Your task to perform on an android device: add a label to a message in the gmail app Image 0: 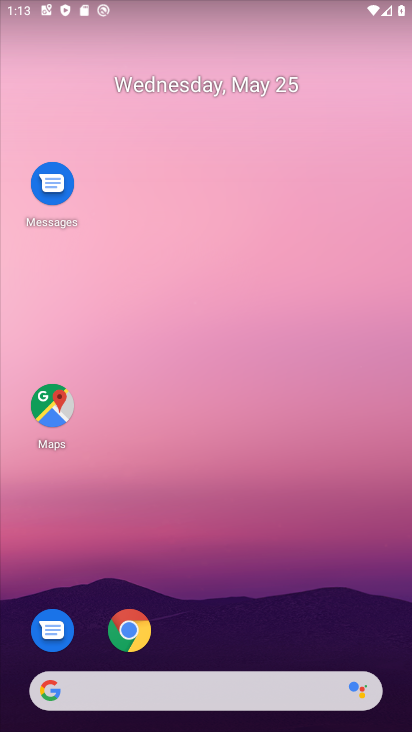
Step 0: drag from (330, 620) to (114, 110)
Your task to perform on an android device: add a label to a message in the gmail app Image 1: 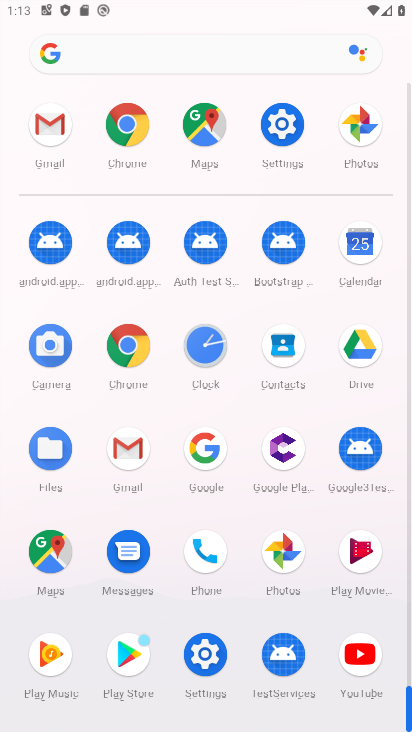
Step 1: click (126, 581)
Your task to perform on an android device: add a label to a message in the gmail app Image 2: 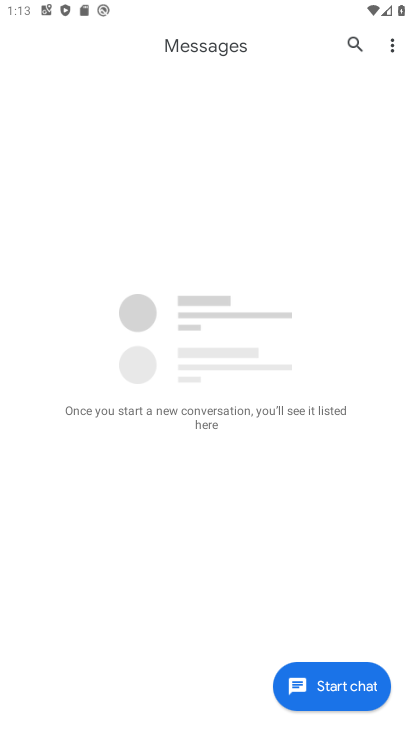
Step 2: press back button
Your task to perform on an android device: add a label to a message in the gmail app Image 3: 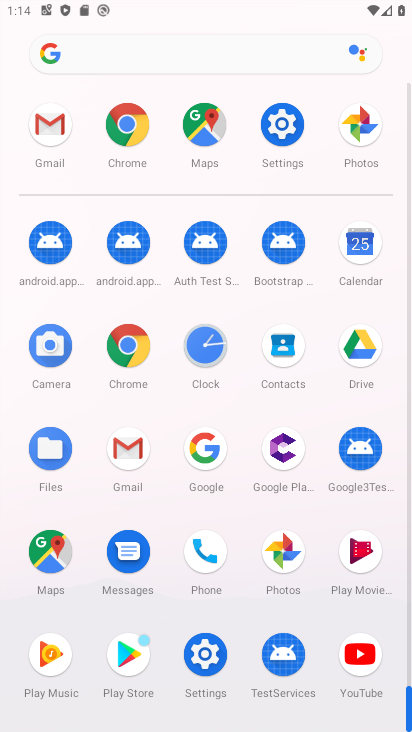
Step 3: click (132, 440)
Your task to perform on an android device: add a label to a message in the gmail app Image 4: 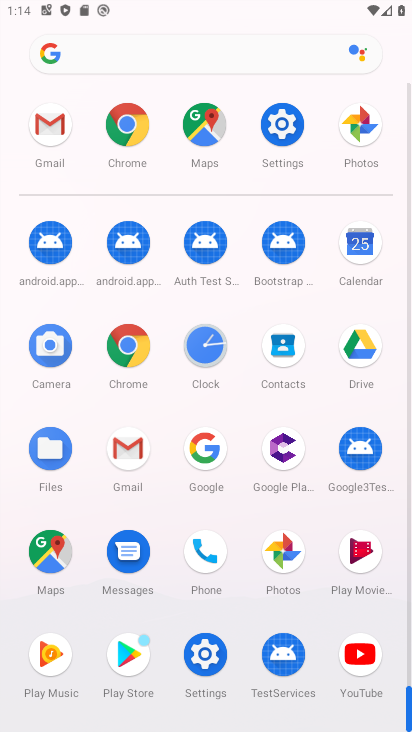
Step 4: click (132, 440)
Your task to perform on an android device: add a label to a message in the gmail app Image 5: 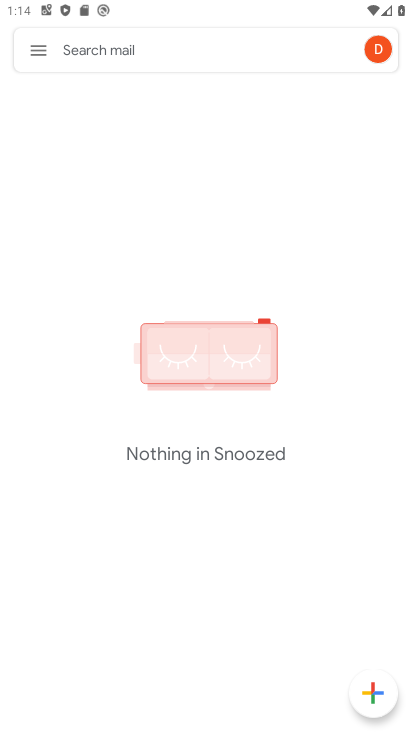
Step 5: click (128, 437)
Your task to perform on an android device: add a label to a message in the gmail app Image 6: 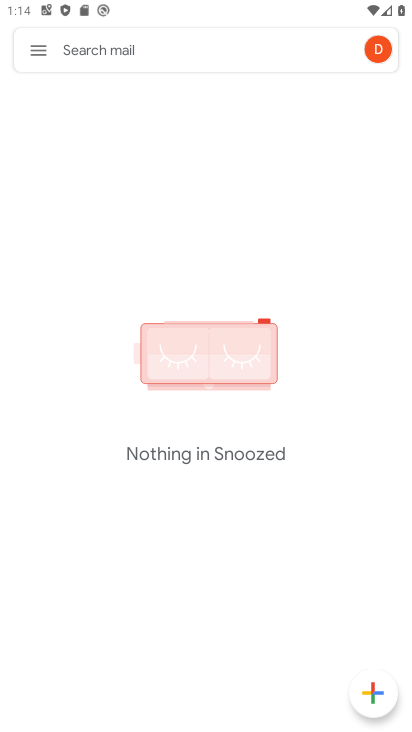
Step 6: click (127, 436)
Your task to perform on an android device: add a label to a message in the gmail app Image 7: 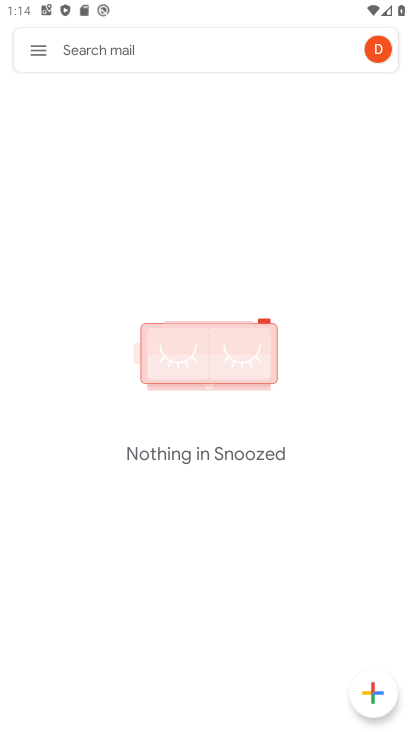
Step 7: click (35, 51)
Your task to perform on an android device: add a label to a message in the gmail app Image 8: 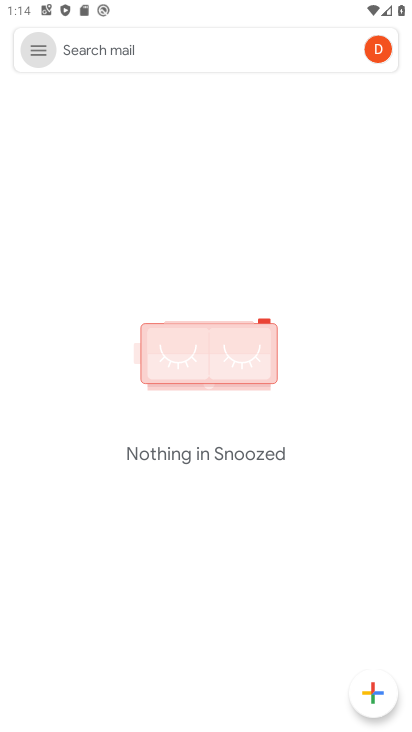
Step 8: click (35, 51)
Your task to perform on an android device: add a label to a message in the gmail app Image 9: 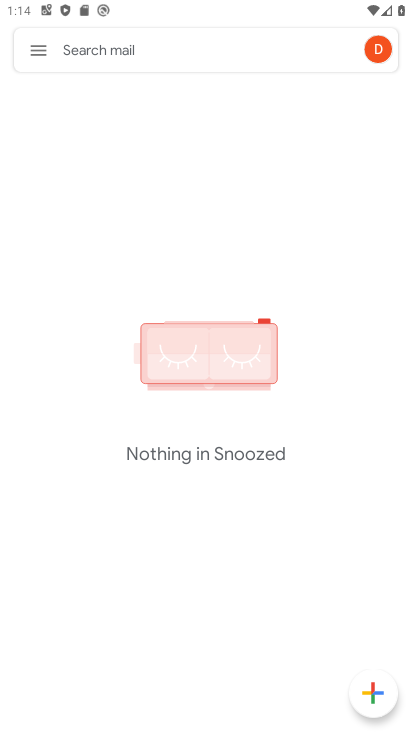
Step 9: drag from (48, 48) to (58, 392)
Your task to perform on an android device: add a label to a message in the gmail app Image 10: 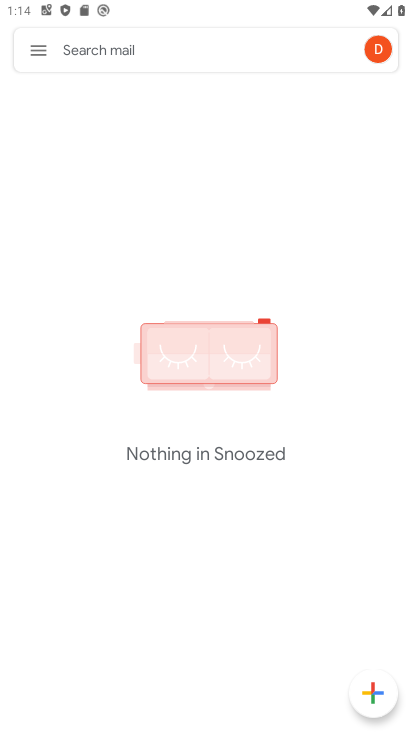
Step 10: click (42, 47)
Your task to perform on an android device: add a label to a message in the gmail app Image 11: 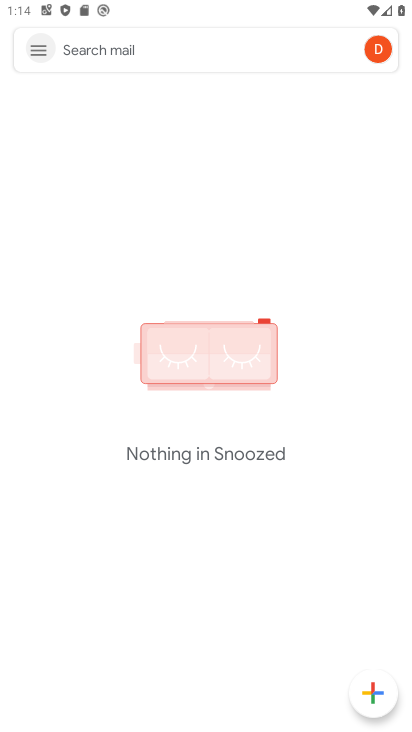
Step 11: click (41, 49)
Your task to perform on an android device: add a label to a message in the gmail app Image 12: 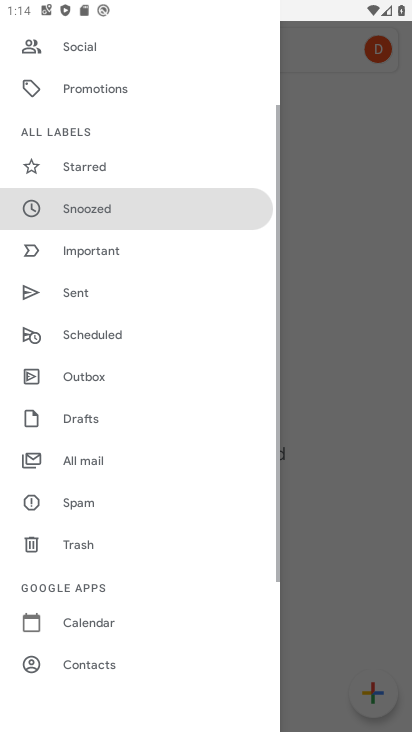
Step 12: drag from (41, 51) to (81, 545)
Your task to perform on an android device: add a label to a message in the gmail app Image 13: 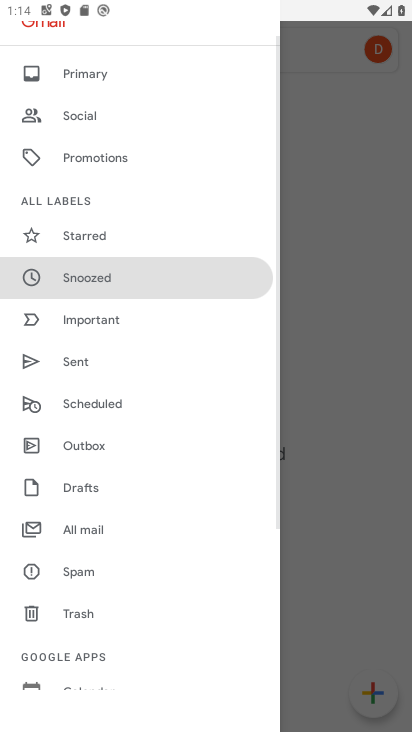
Step 13: click (90, 542)
Your task to perform on an android device: add a label to a message in the gmail app Image 14: 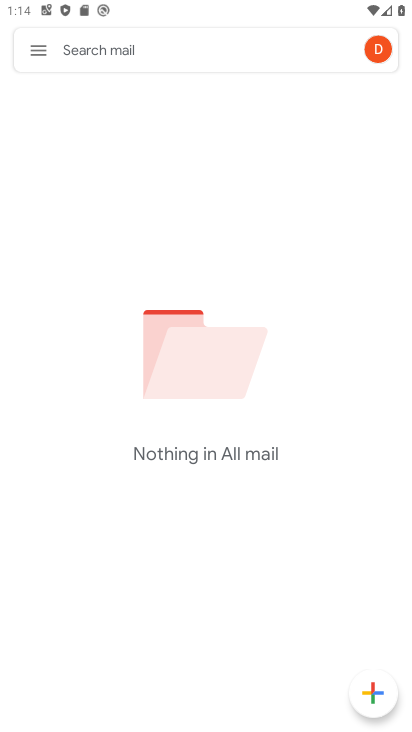
Step 14: click (89, 528)
Your task to perform on an android device: add a label to a message in the gmail app Image 15: 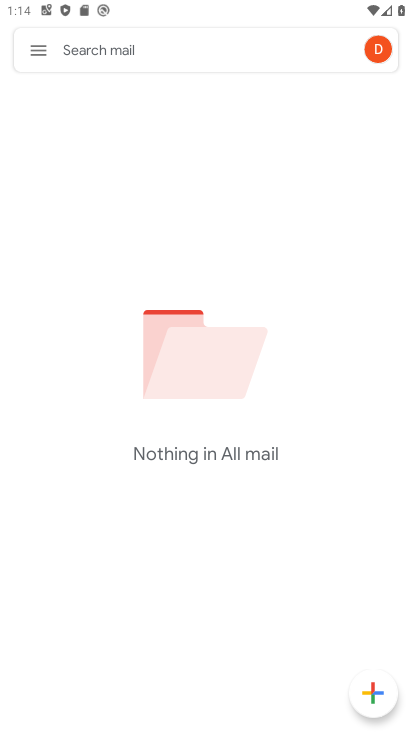
Step 15: press back button
Your task to perform on an android device: add a label to a message in the gmail app Image 16: 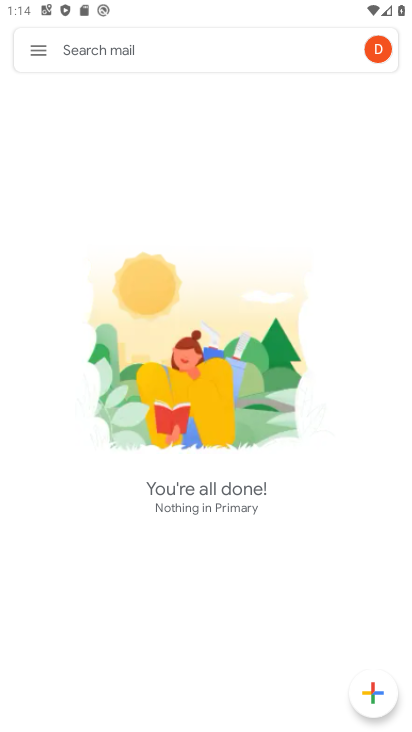
Step 16: press home button
Your task to perform on an android device: add a label to a message in the gmail app Image 17: 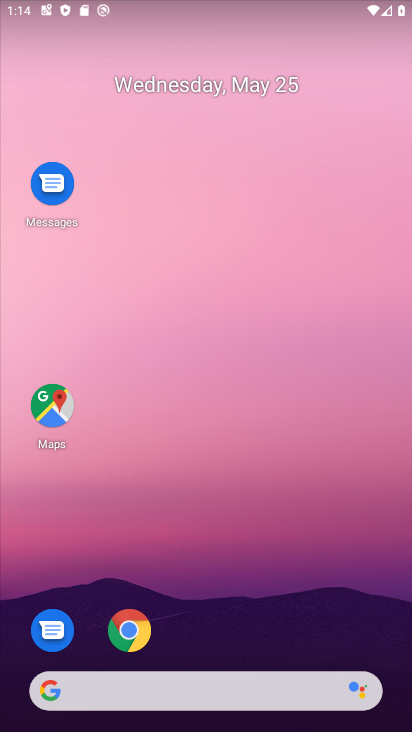
Step 17: drag from (306, 624) to (187, 0)
Your task to perform on an android device: add a label to a message in the gmail app Image 18: 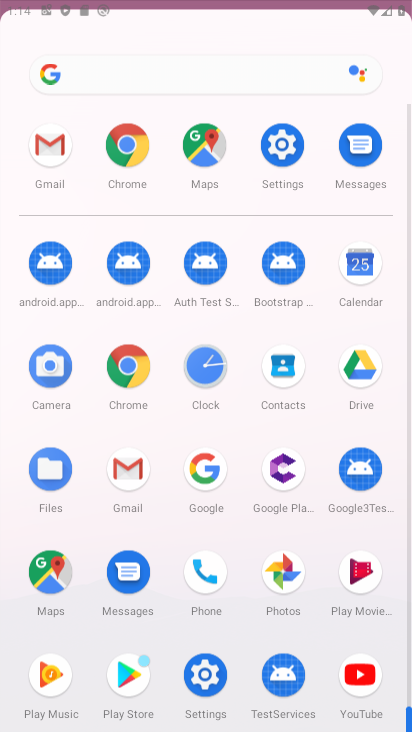
Step 18: drag from (238, 573) to (151, 219)
Your task to perform on an android device: add a label to a message in the gmail app Image 19: 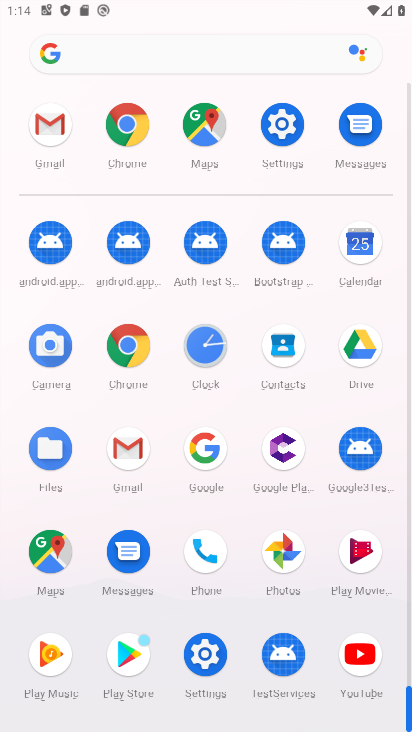
Step 19: click (135, 448)
Your task to perform on an android device: add a label to a message in the gmail app Image 20: 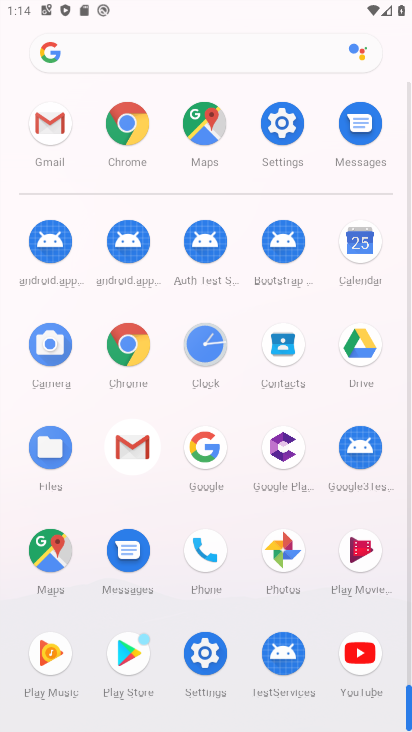
Step 20: click (135, 448)
Your task to perform on an android device: add a label to a message in the gmail app Image 21: 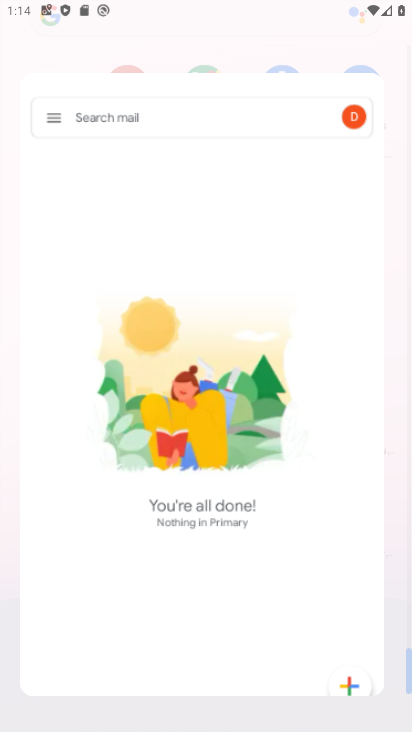
Step 21: click (135, 448)
Your task to perform on an android device: add a label to a message in the gmail app Image 22: 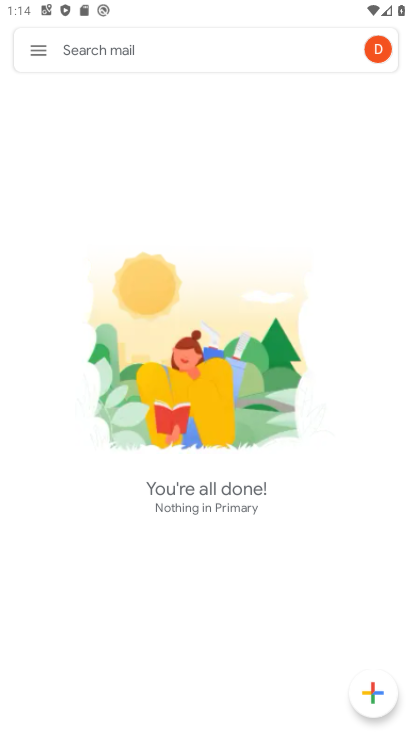
Step 22: click (135, 448)
Your task to perform on an android device: add a label to a message in the gmail app Image 23: 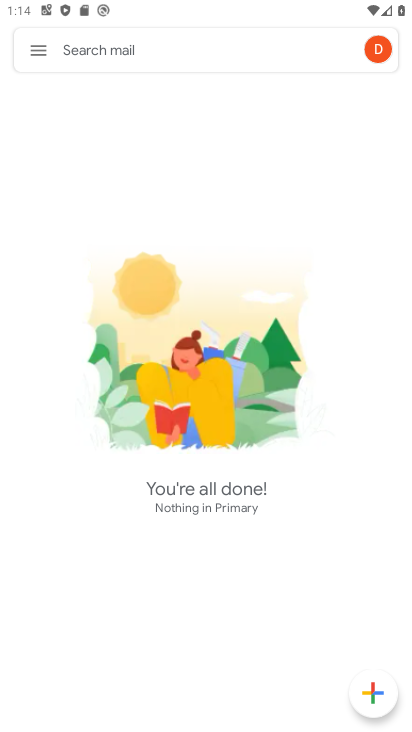
Step 23: click (134, 448)
Your task to perform on an android device: add a label to a message in the gmail app Image 24: 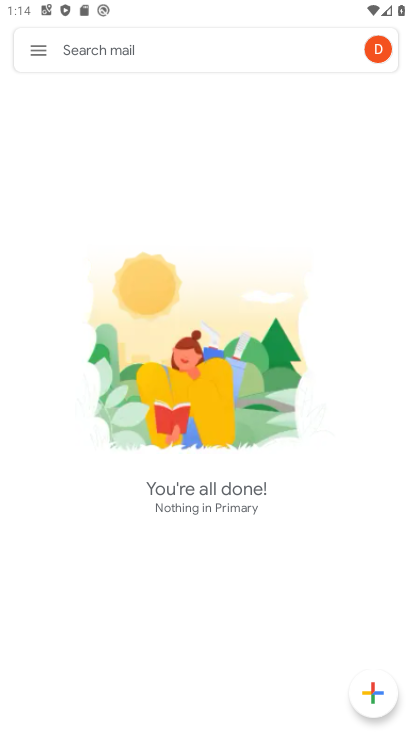
Step 24: drag from (33, 49) to (48, 166)
Your task to perform on an android device: add a label to a message in the gmail app Image 25: 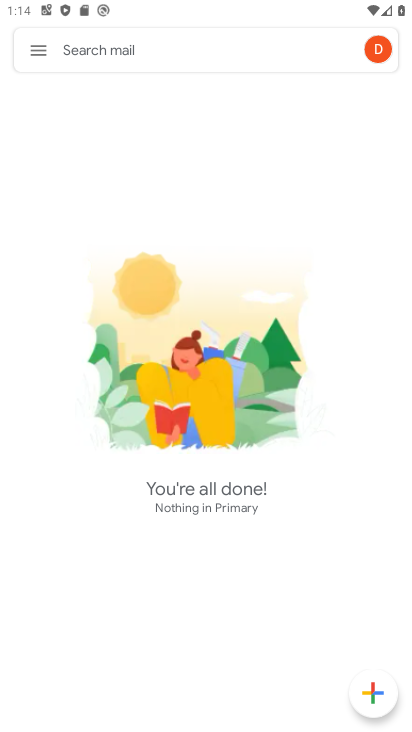
Step 25: click (36, 51)
Your task to perform on an android device: add a label to a message in the gmail app Image 26: 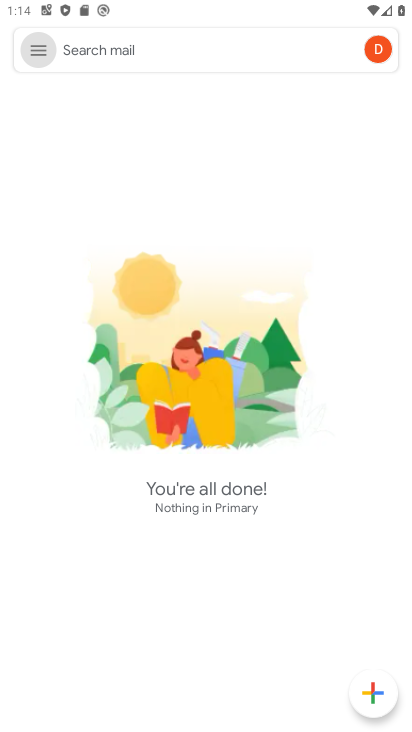
Step 26: click (36, 52)
Your task to perform on an android device: add a label to a message in the gmail app Image 27: 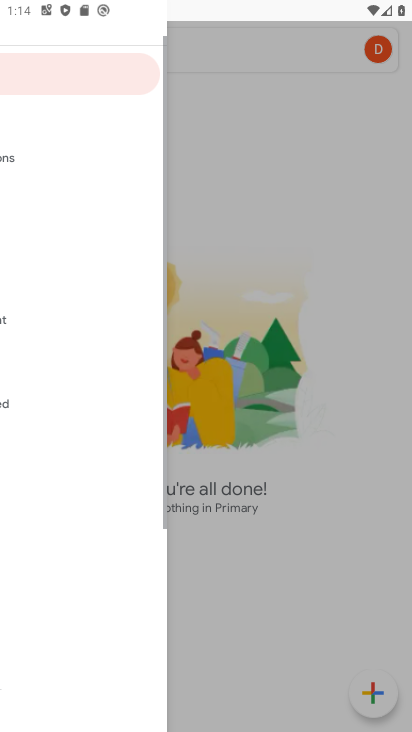
Step 27: click (37, 53)
Your task to perform on an android device: add a label to a message in the gmail app Image 28: 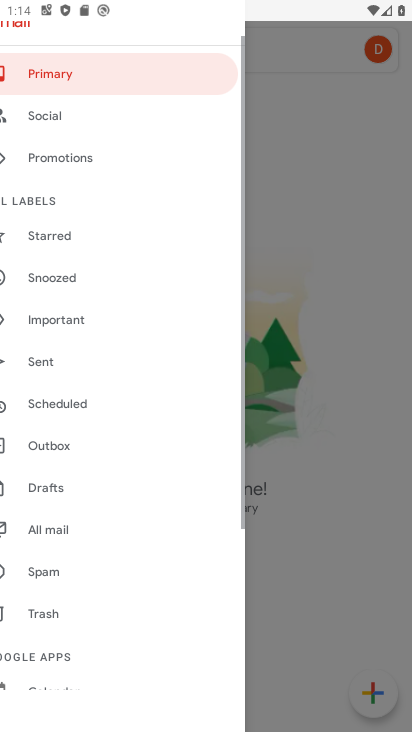
Step 28: click (37, 53)
Your task to perform on an android device: add a label to a message in the gmail app Image 29: 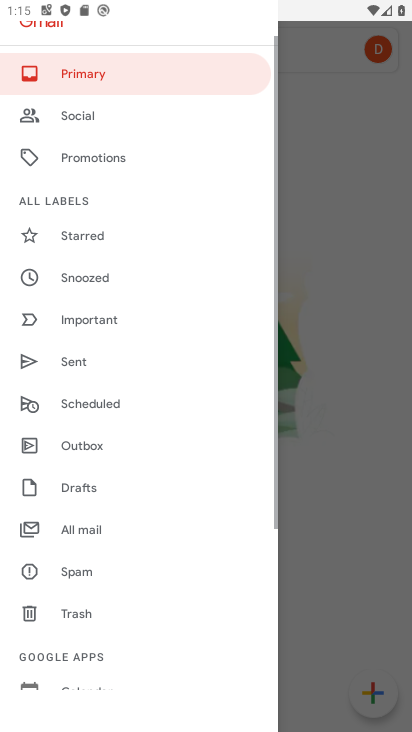
Step 29: click (37, 56)
Your task to perform on an android device: add a label to a message in the gmail app Image 30: 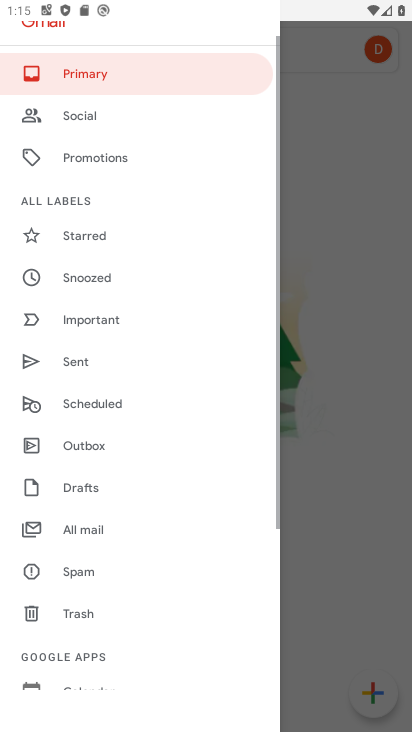
Step 30: click (37, 58)
Your task to perform on an android device: add a label to a message in the gmail app Image 31: 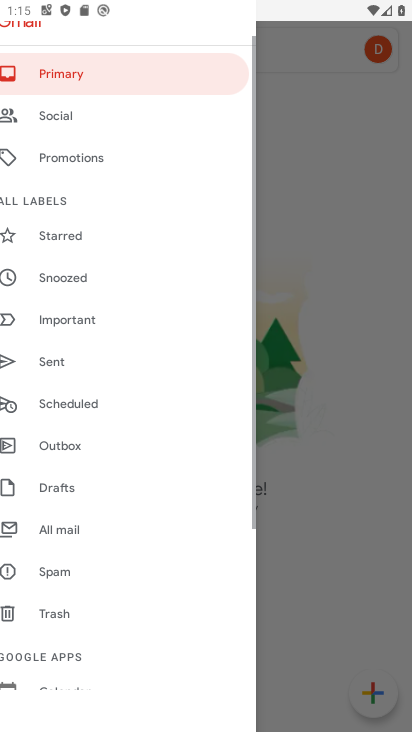
Step 31: drag from (37, 67) to (82, 550)
Your task to perform on an android device: add a label to a message in the gmail app Image 32: 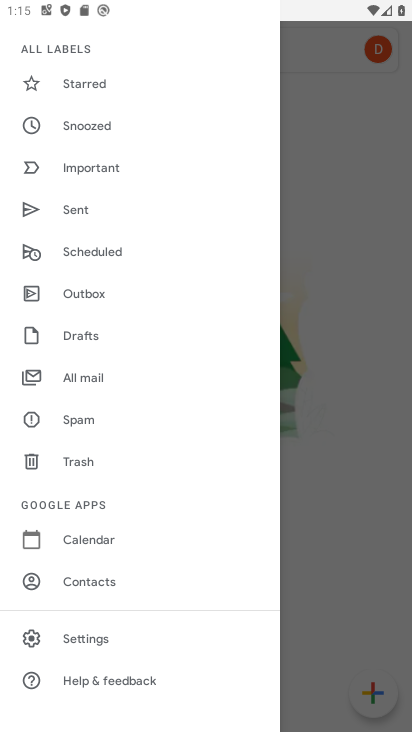
Step 32: click (78, 378)
Your task to perform on an android device: add a label to a message in the gmail app Image 33: 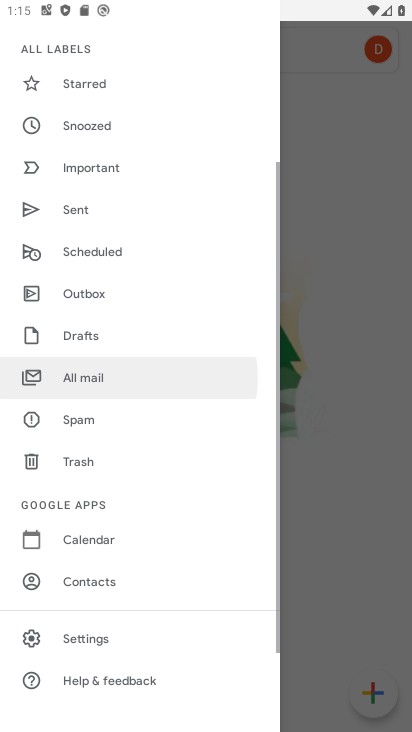
Step 33: click (78, 377)
Your task to perform on an android device: add a label to a message in the gmail app Image 34: 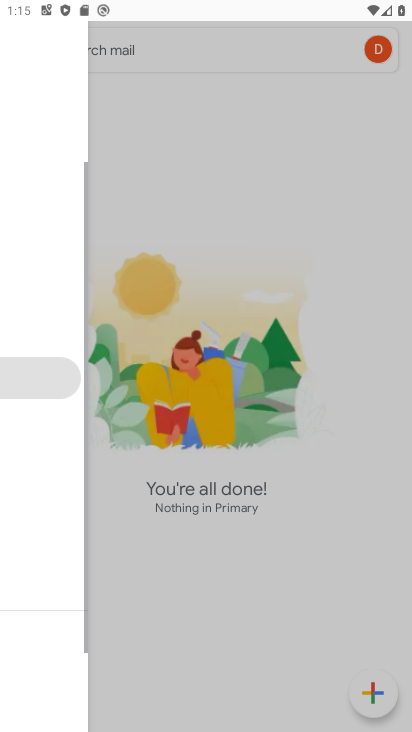
Step 34: click (78, 377)
Your task to perform on an android device: add a label to a message in the gmail app Image 35: 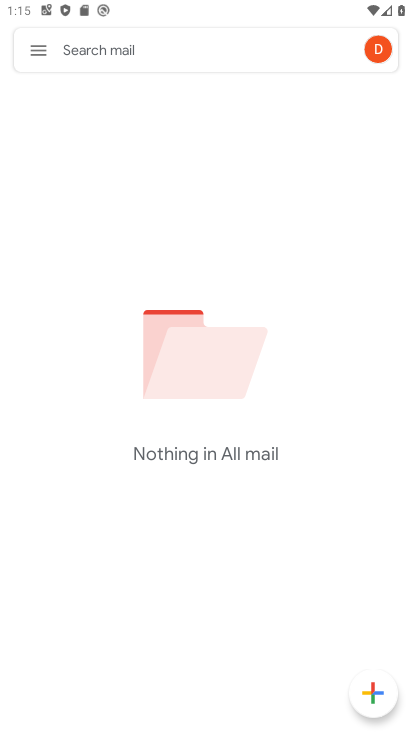
Step 35: task complete